Your task to perform on an android device: turn vacation reply on in the gmail app Image 0: 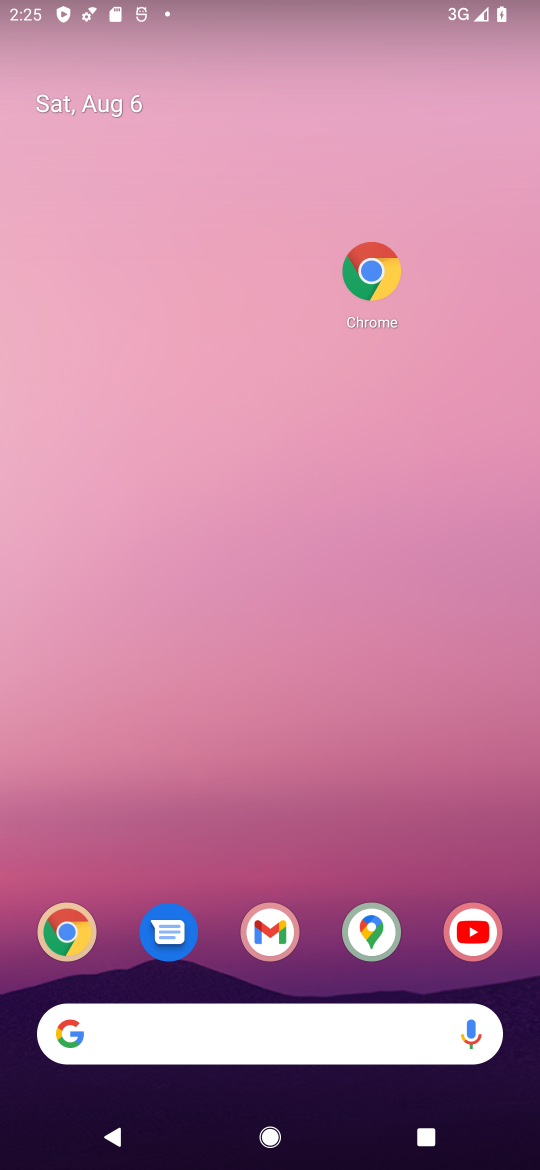
Step 0: drag from (312, 962) to (214, 2)
Your task to perform on an android device: turn vacation reply on in the gmail app Image 1: 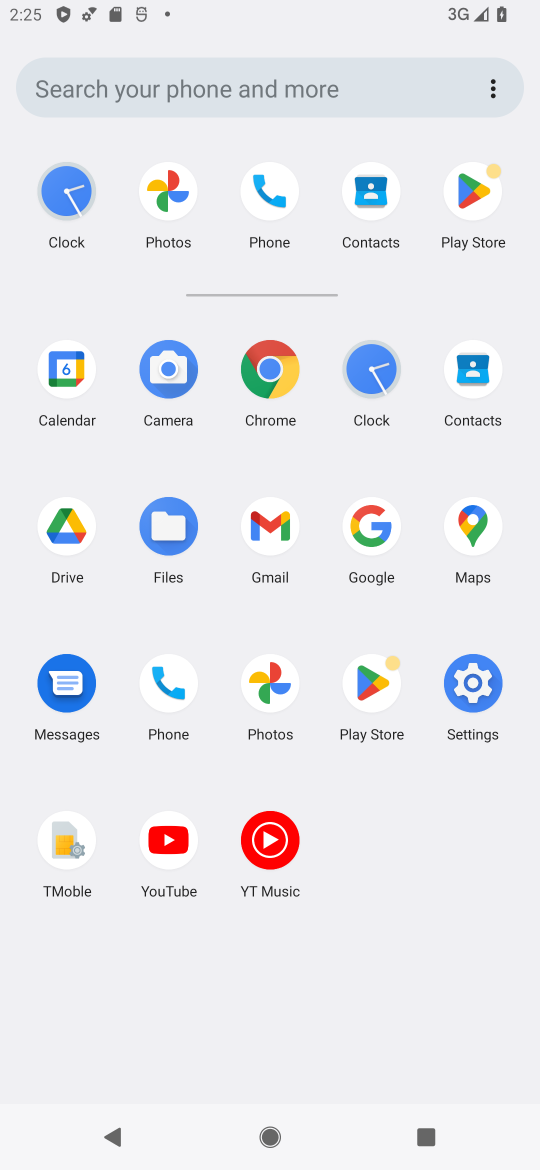
Step 1: click (270, 521)
Your task to perform on an android device: turn vacation reply on in the gmail app Image 2: 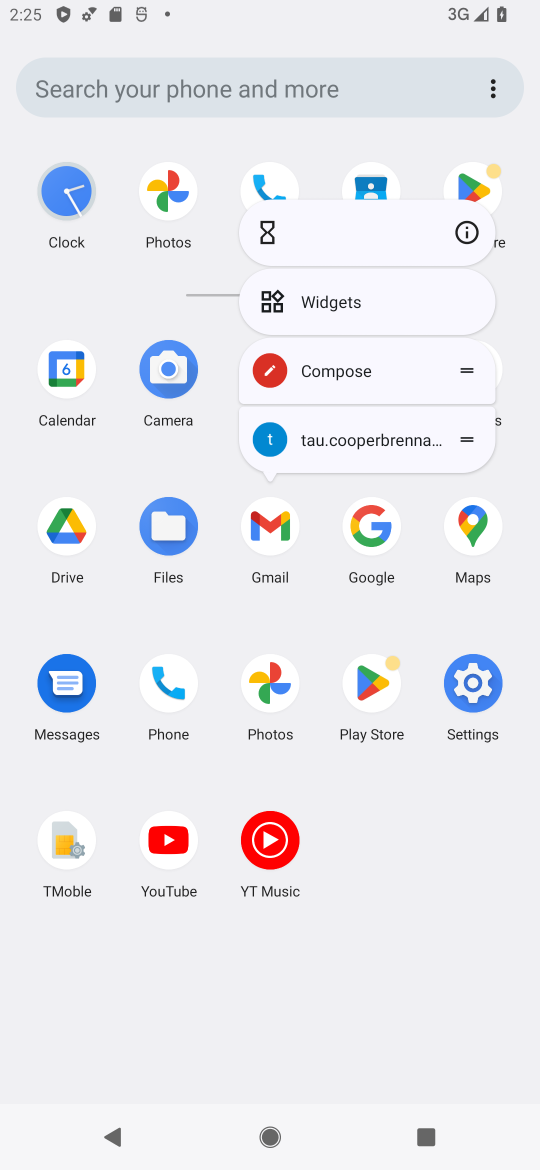
Step 2: click (261, 519)
Your task to perform on an android device: turn vacation reply on in the gmail app Image 3: 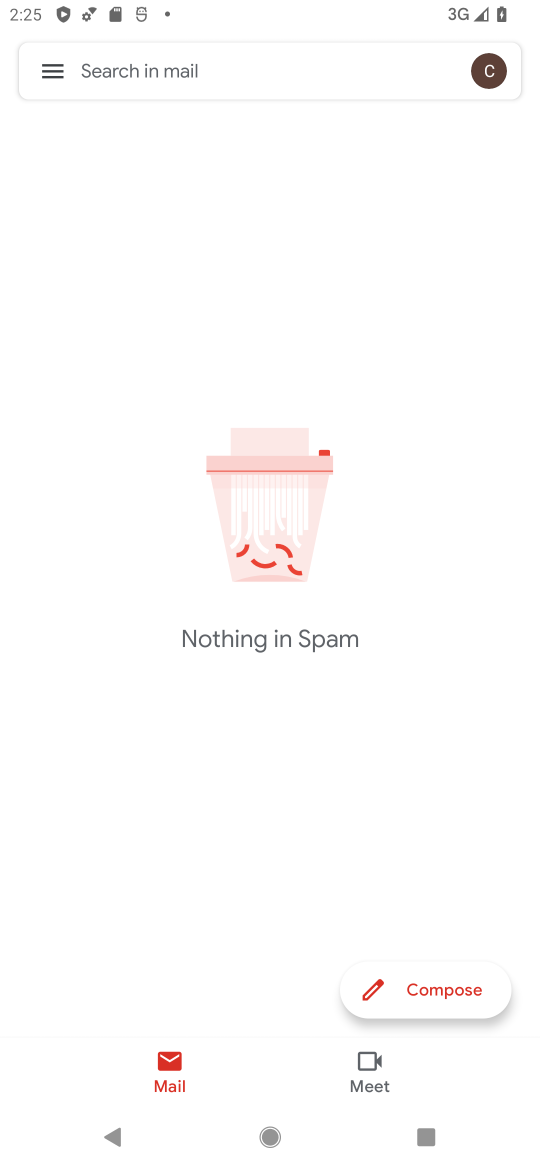
Step 3: click (44, 63)
Your task to perform on an android device: turn vacation reply on in the gmail app Image 4: 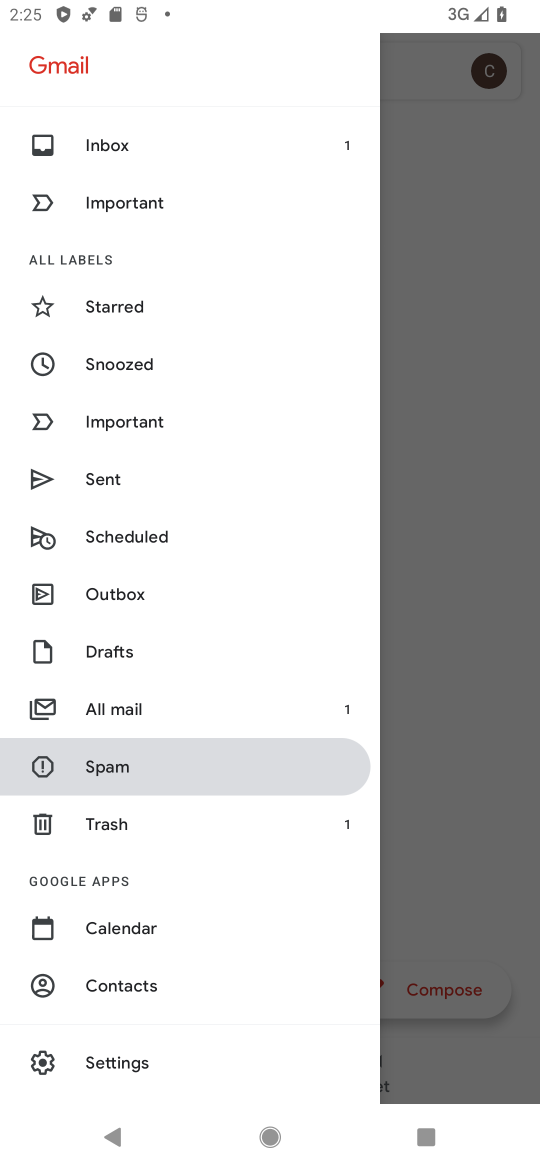
Step 4: click (132, 1057)
Your task to perform on an android device: turn vacation reply on in the gmail app Image 5: 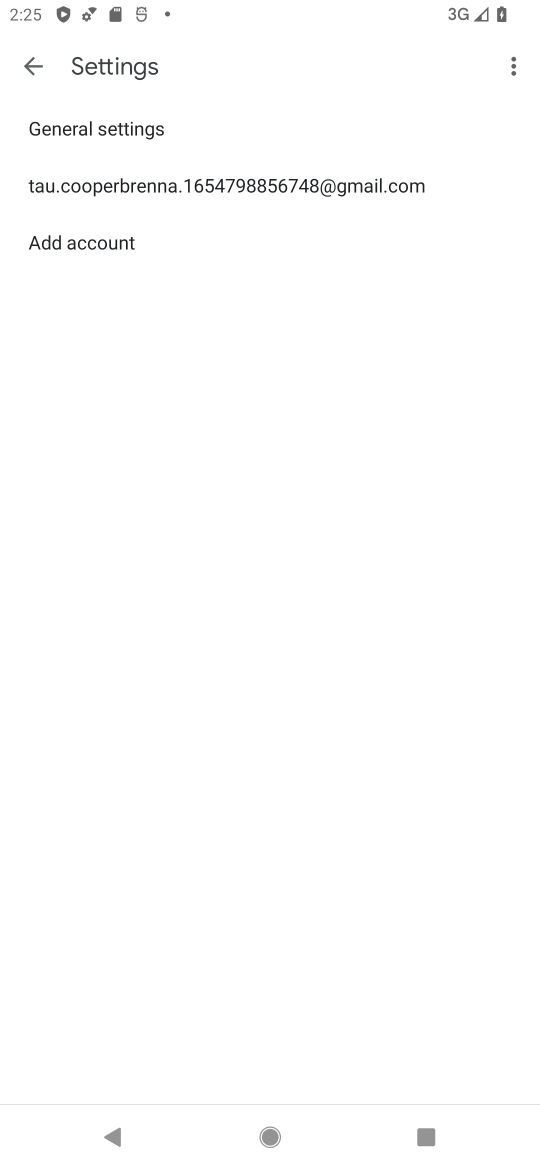
Step 5: click (144, 176)
Your task to perform on an android device: turn vacation reply on in the gmail app Image 6: 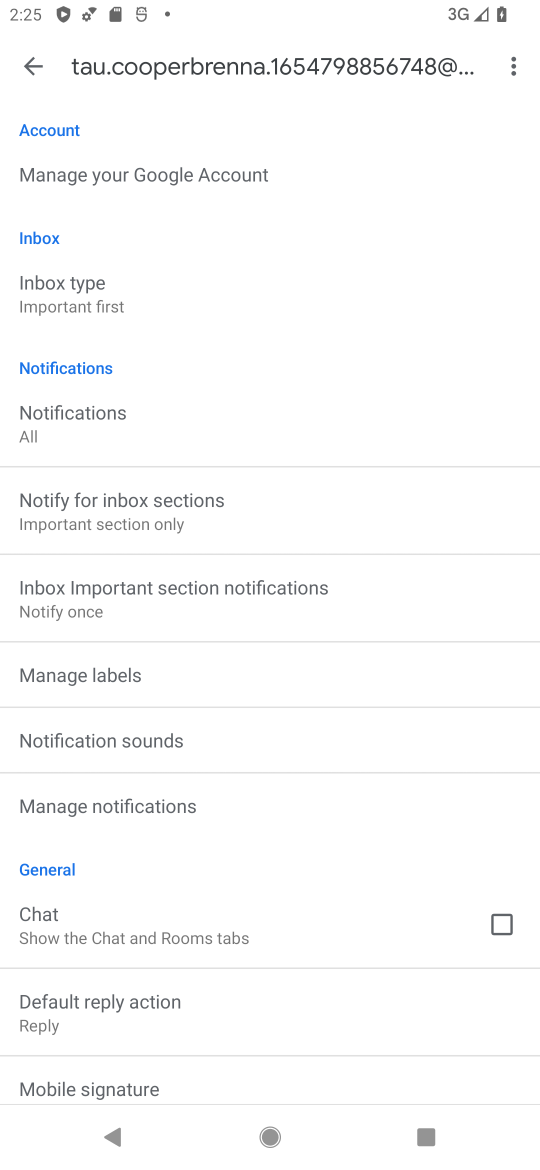
Step 6: drag from (193, 1000) to (182, 537)
Your task to perform on an android device: turn vacation reply on in the gmail app Image 7: 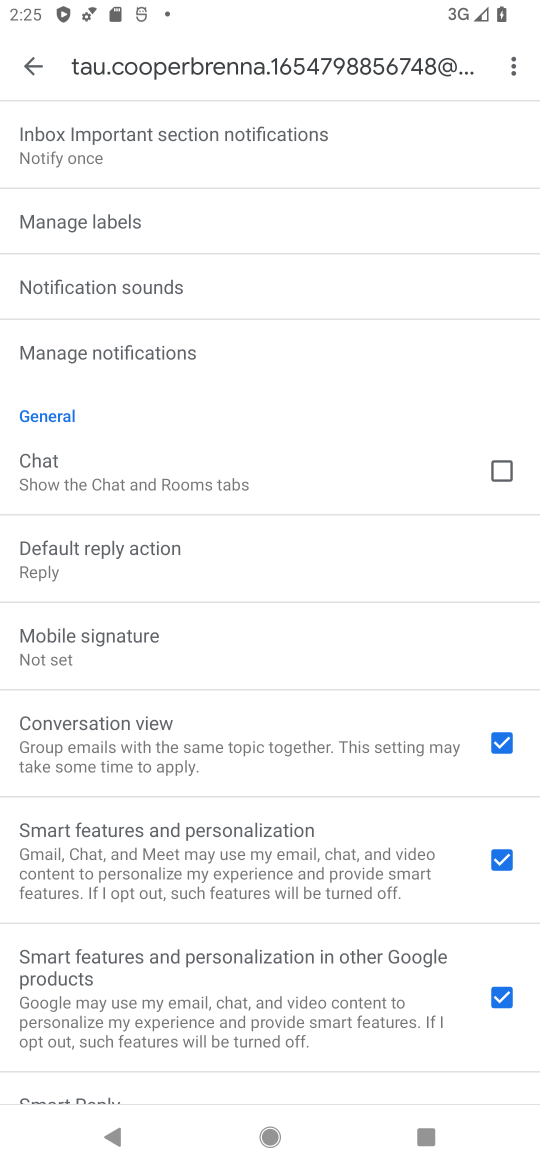
Step 7: drag from (224, 916) to (216, 290)
Your task to perform on an android device: turn vacation reply on in the gmail app Image 8: 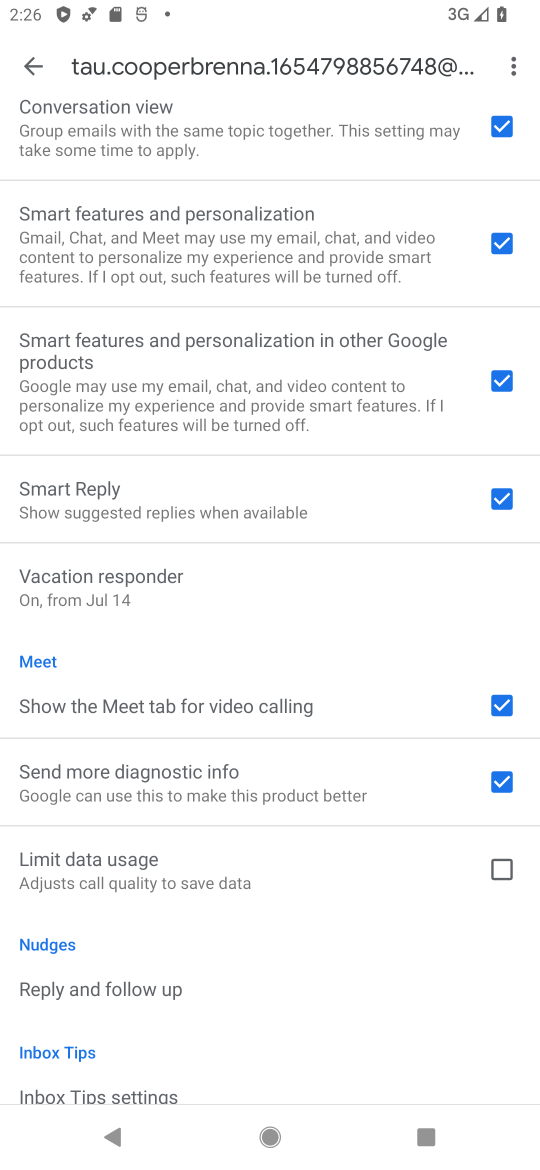
Step 8: click (78, 599)
Your task to perform on an android device: turn vacation reply on in the gmail app Image 9: 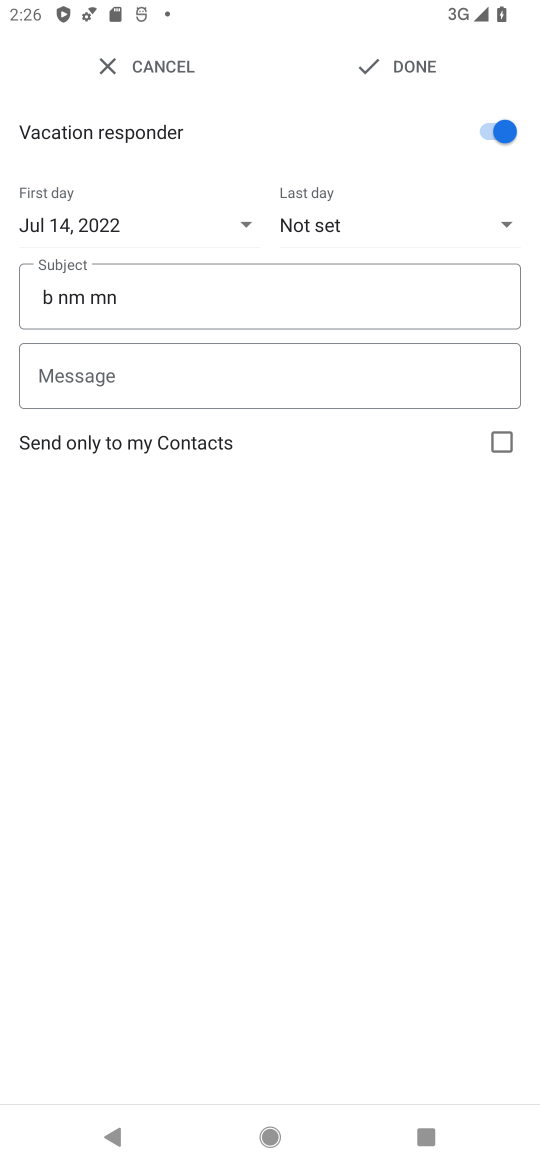
Step 9: click (424, 55)
Your task to perform on an android device: turn vacation reply on in the gmail app Image 10: 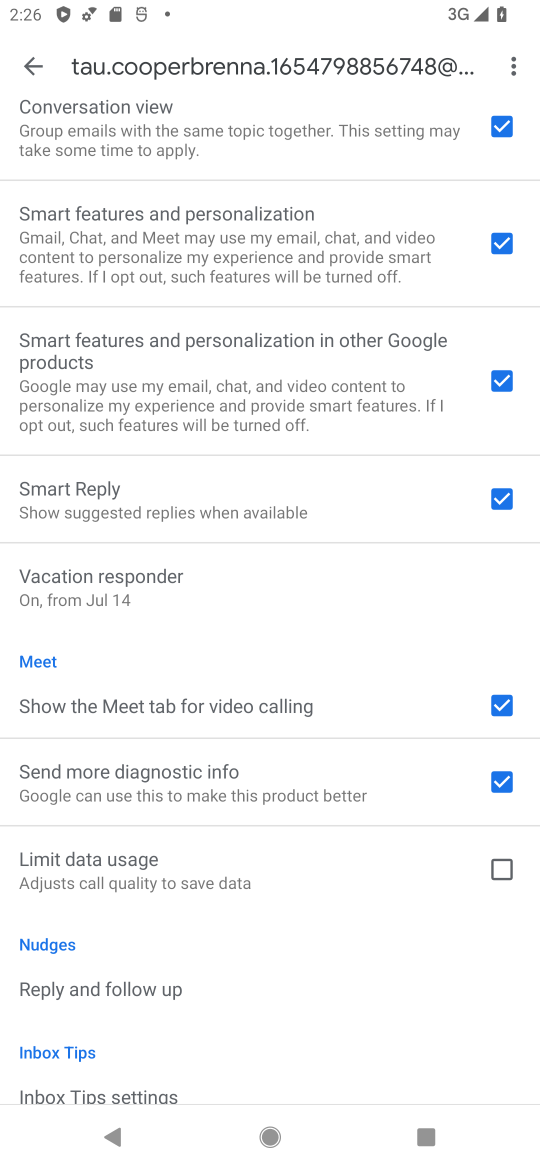
Step 10: task complete